Your task to perform on an android device: Do I have any events this weekend? Image 0: 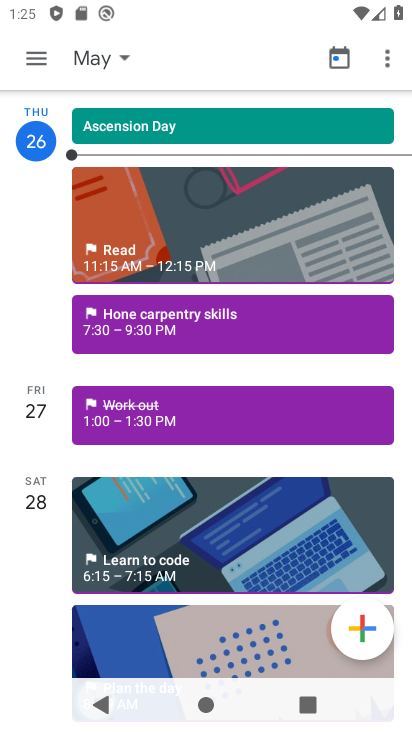
Step 0: press home button
Your task to perform on an android device: Do I have any events this weekend? Image 1: 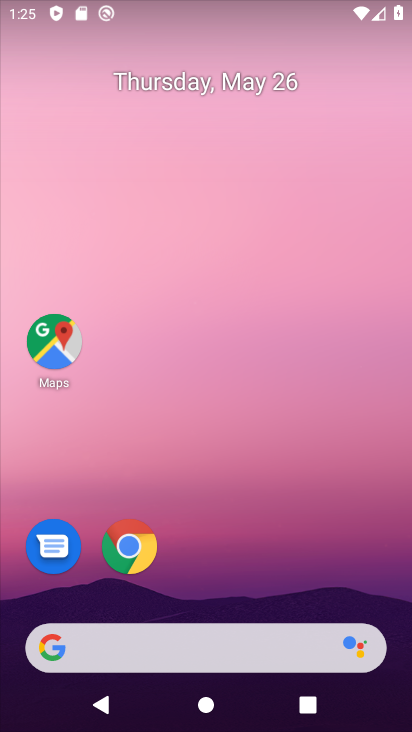
Step 1: drag from (275, 558) to (378, 52)
Your task to perform on an android device: Do I have any events this weekend? Image 2: 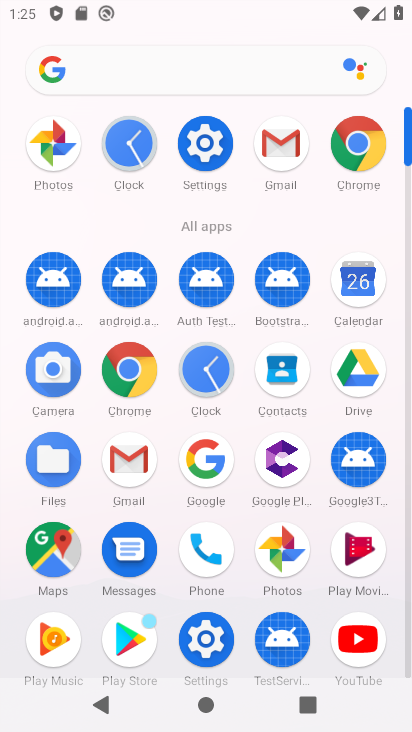
Step 2: click (360, 284)
Your task to perform on an android device: Do I have any events this weekend? Image 3: 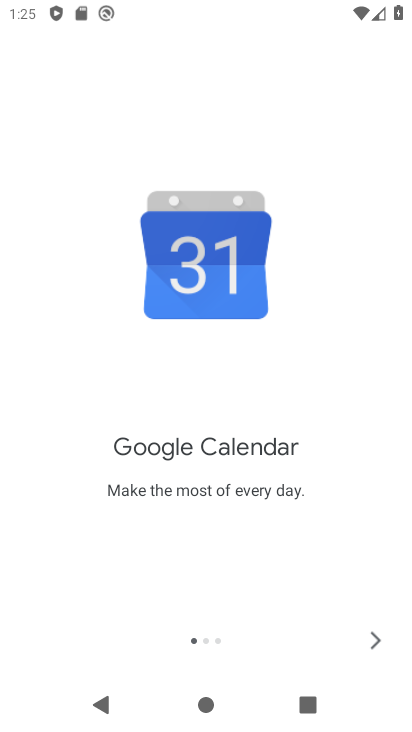
Step 3: click (372, 642)
Your task to perform on an android device: Do I have any events this weekend? Image 4: 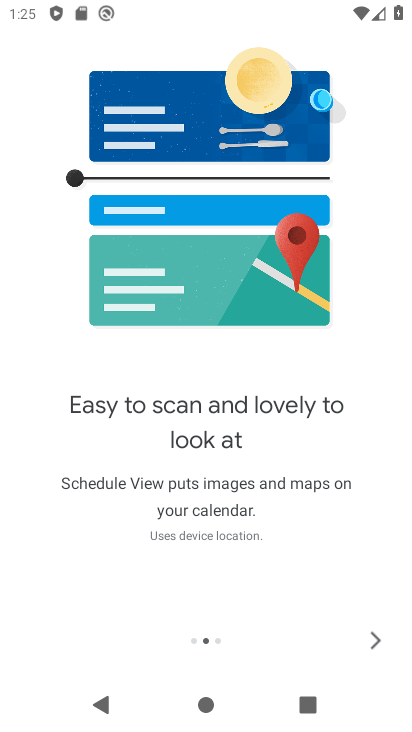
Step 4: click (373, 640)
Your task to perform on an android device: Do I have any events this weekend? Image 5: 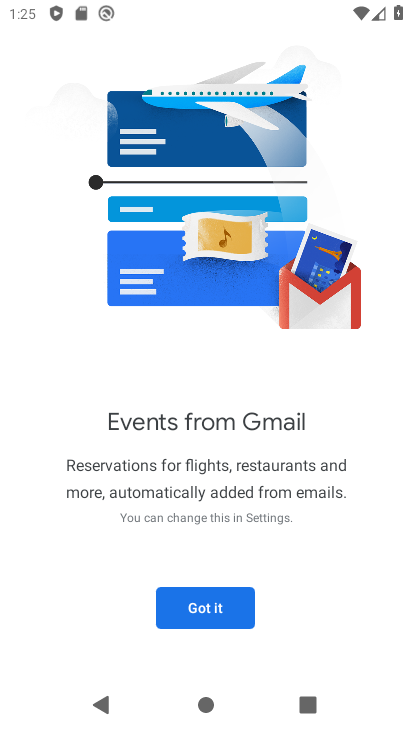
Step 5: click (195, 606)
Your task to perform on an android device: Do I have any events this weekend? Image 6: 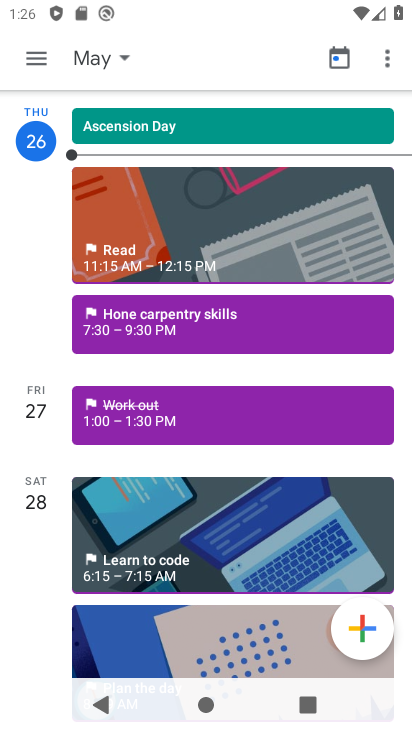
Step 6: click (374, 60)
Your task to perform on an android device: Do I have any events this weekend? Image 7: 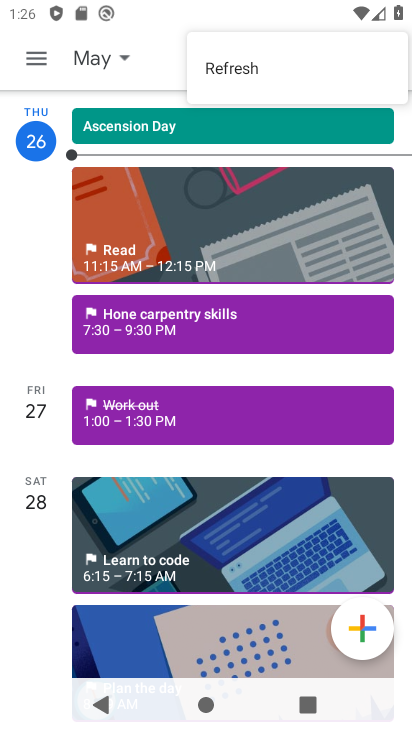
Step 7: click (131, 61)
Your task to perform on an android device: Do I have any events this weekend? Image 8: 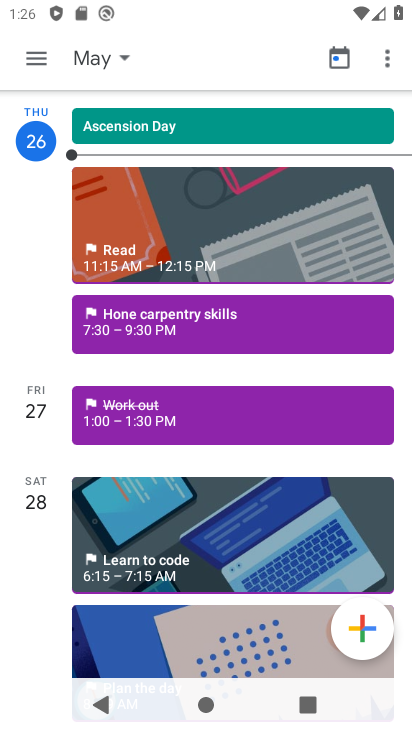
Step 8: click (110, 64)
Your task to perform on an android device: Do I have any events this weekend? Image 9: 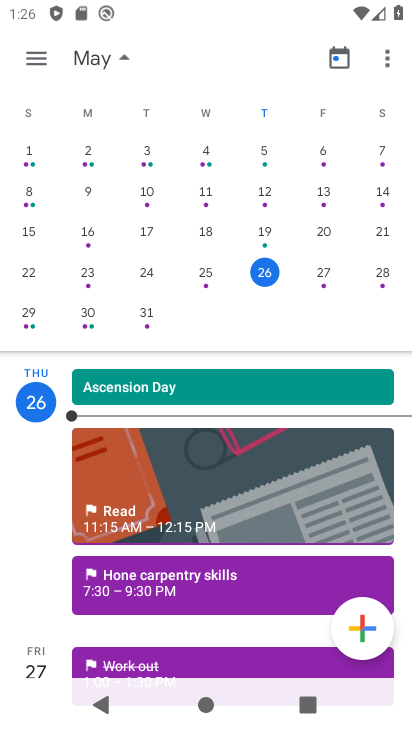
Step 9: click (323, 271)
Your task to perform on an android device: Do I have any events this weekend? Image 10: 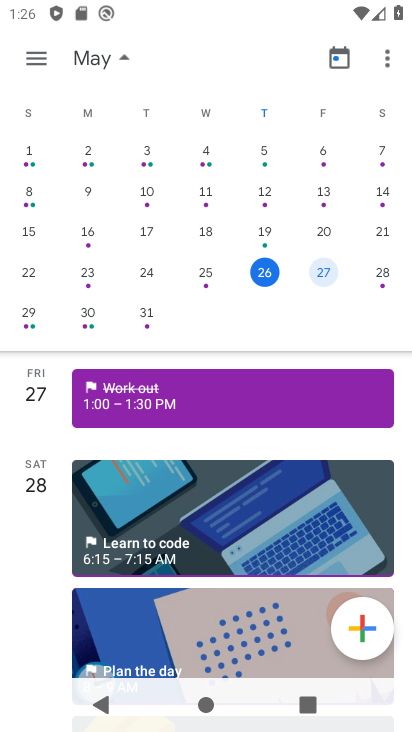
Step 10: task complete